Your task to perform on an android device: turn off smart reply in the gmail app Image 0: 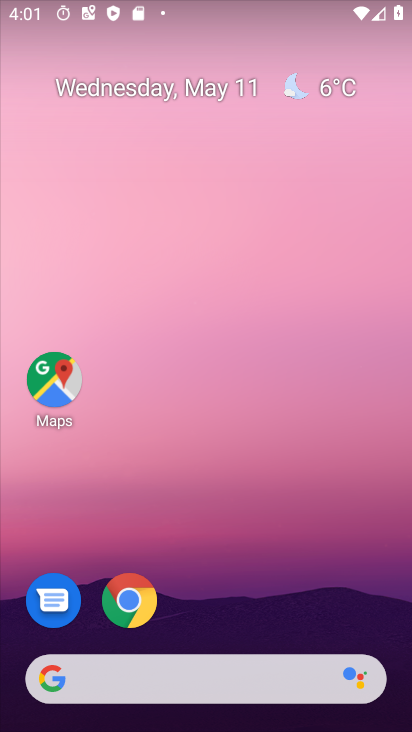
Step 0: click (376, 432)
Your task to perform on an android device: turn off smart reply in the gmail app Image 1: 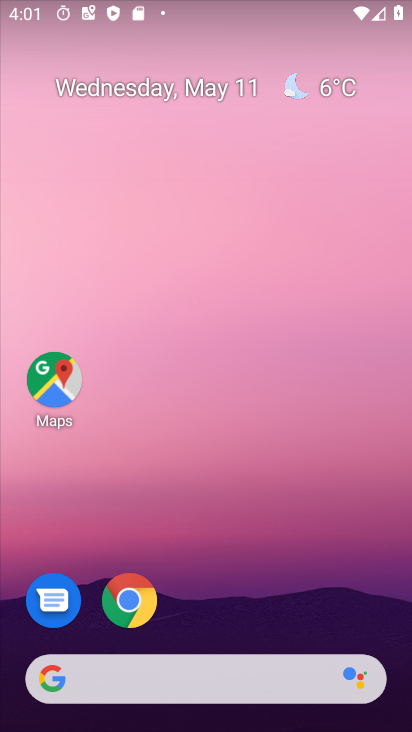
Step 1: drag from (273, 602) to (166, 108)
Your task to perform on an android device: turn off smart reply in the gmail app Image 2: 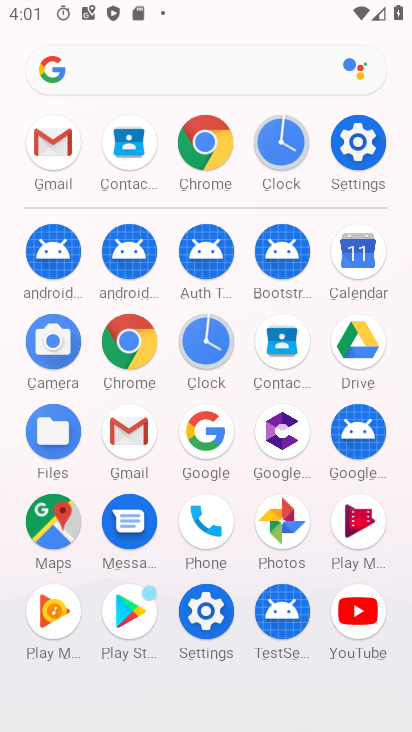
Step 2: click (136, 433)
Your task to perform on an android device: turn off smart reply in the gmail app Image 3: 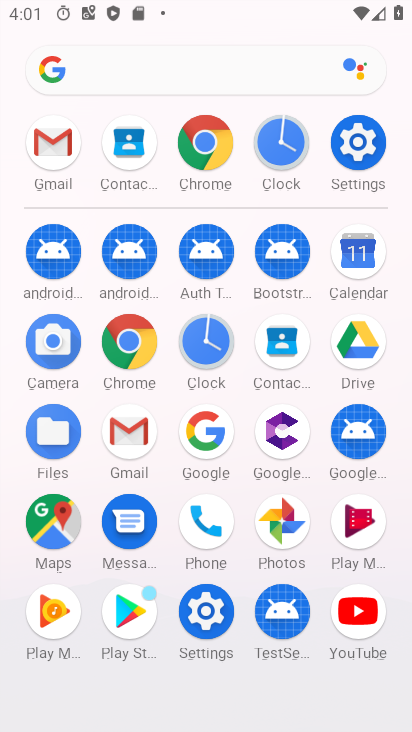
Step 3: click (135, 433)
Your task to perform on an android device: turn off smart reply in the gmail app Image 4: 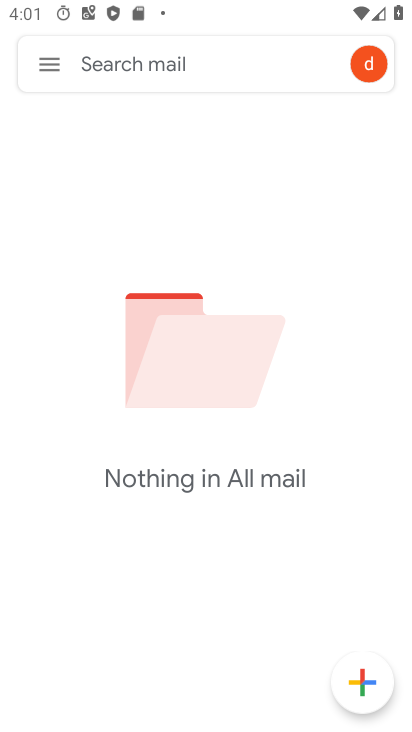
Step 4: click (46, 66)
Your task to perform on an android device: turn off smart reply in the gmail app Image 5: 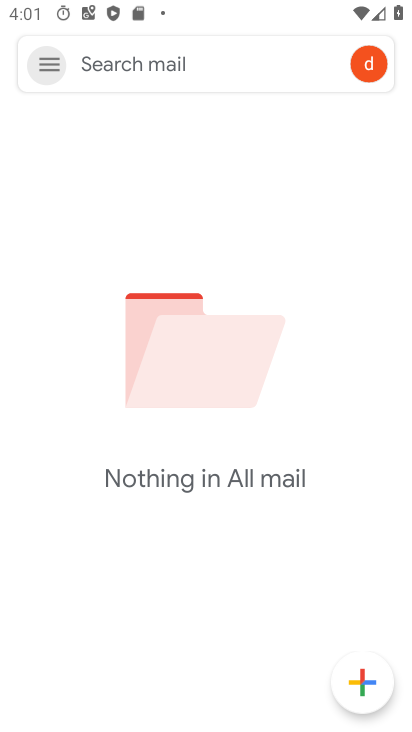
Step 5: click (45, 66)
Your task to perform on an android device: turn off smart reply in the gmail app Image 6: 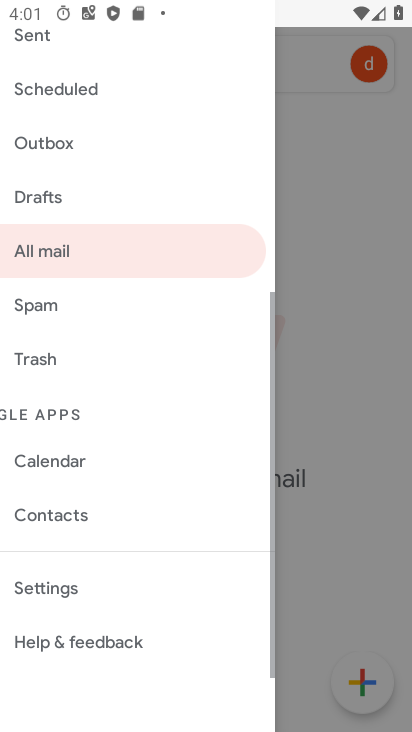
Step 6: click (41, 72)
Your task to perform on an android device: turn off smart reply in the gmail app Image 7: 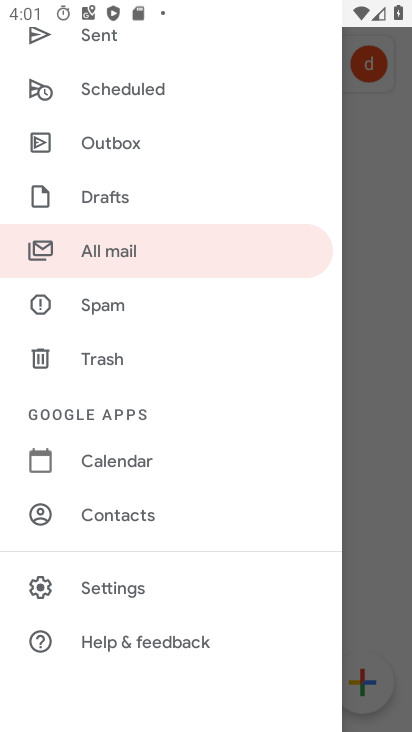
Step 7: click (104, 586)
Your task to perform on an android device: turn off smart reply in the gmail app Image 8: 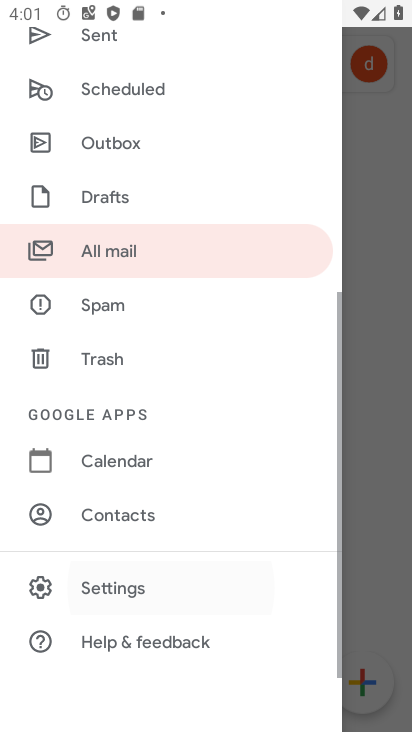
Step 8: click (107, 590)
Your task to perform on an android device: turn off smart reply in the gmail app Image 9: 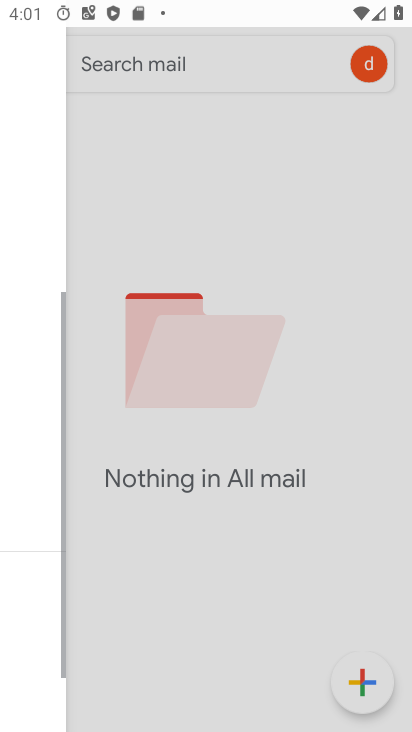
Step 9: click (108, 589)
Your task to perform on an android device: turn off smart reply in the gmail app Image 10: 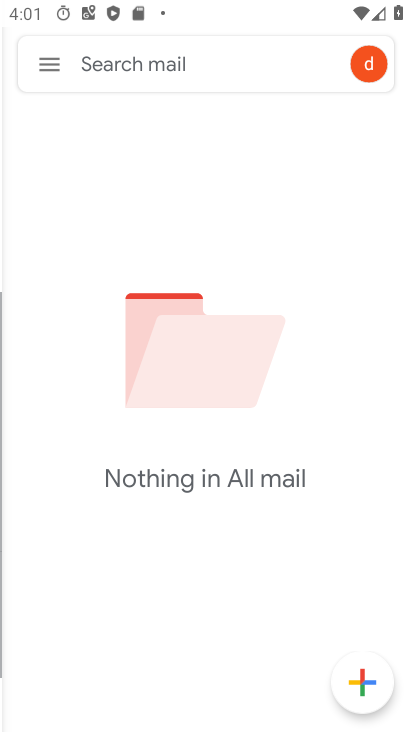
Step 10: click (106, 584)
Your task to perform on an android device: turn off smart reply in the gmail app Image 11: 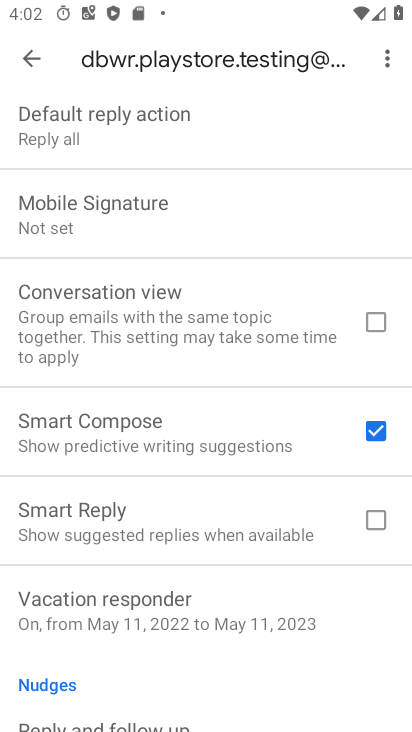
Step 11: task complete